Your task to perform on an android device: delete a single message in the gmail app Image 0: 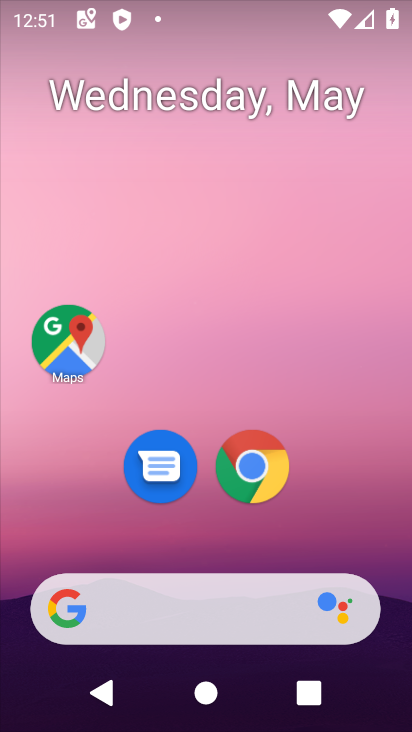
Step 0: drag from (208, 528) to (234, 90)
Your task to perform on an android device: delete a single message in the gmail app Image 1: 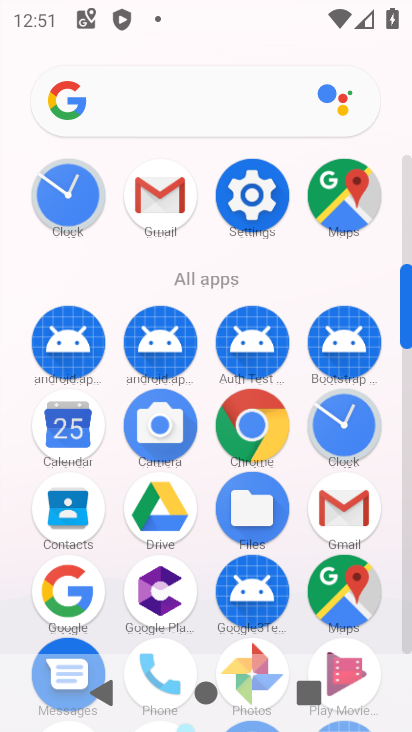
Step 1: click (340, 503)
Your task to perform on an android device: delete a single message in the gmail app Image 2: 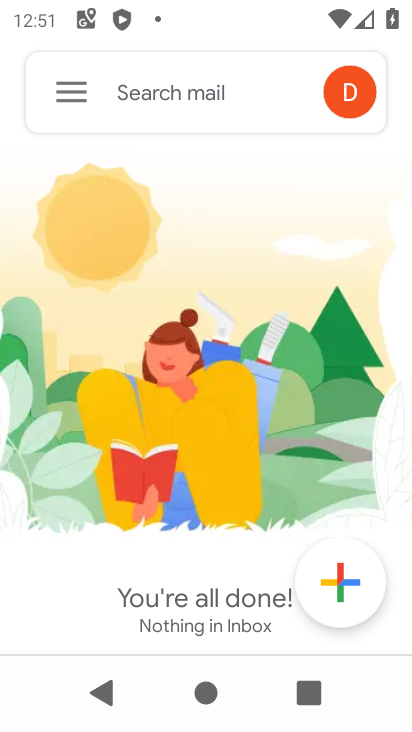
Step 2: click (66, 96)
Your task to perform on an android device: delete a single message in the gmail app Image 3: 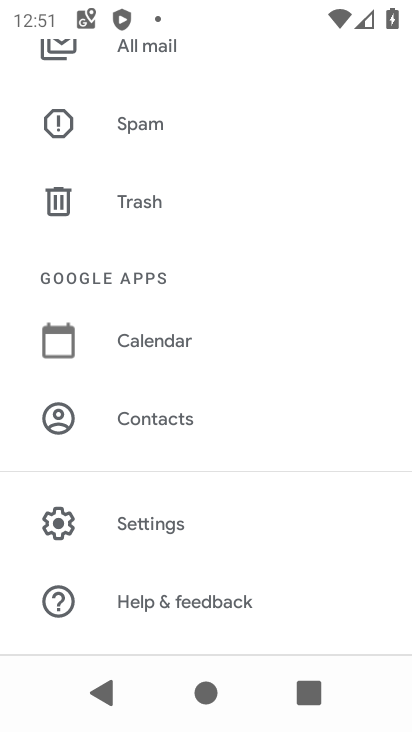
Step 3: drag from (199, 284) to (227, 480)
Your task to perform on an android device: delete a single message in the gmail app Image 4: 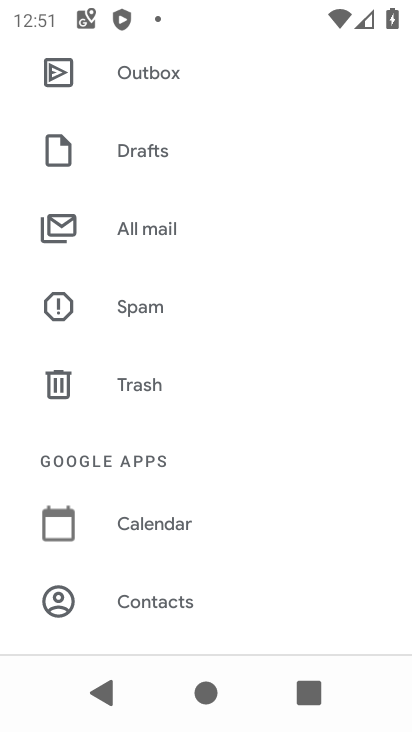
Step 4: click (176, 242)
Your task to perform on an android device: delete a single message in the gmail app Image 5: 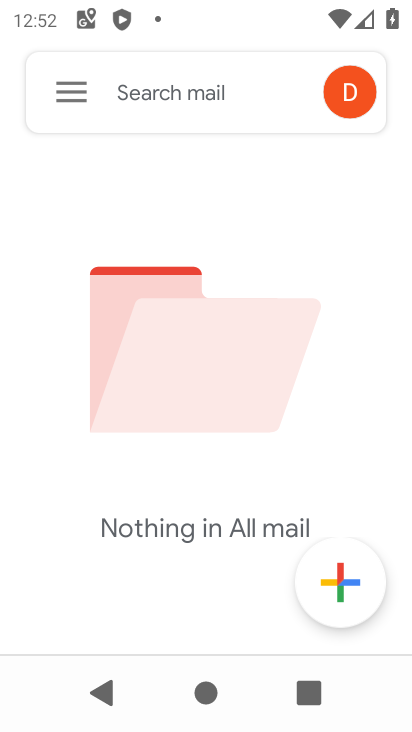
Step 5: task complete